Your task to perform on an android device: Open wifi settings Image 0: 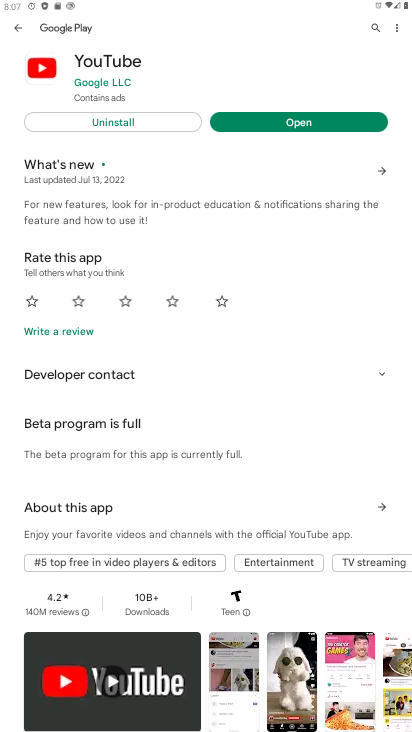
Step 0: press home button
Your task to perform on an android device: Open wifi settings Image 1: 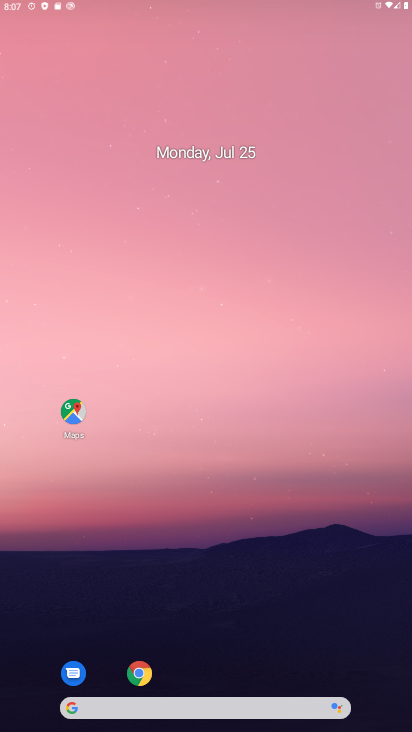
Step 1: drag from (382, 642) to (203, 47)
Your task to perform on an android device: Open wifi settings Image 2: 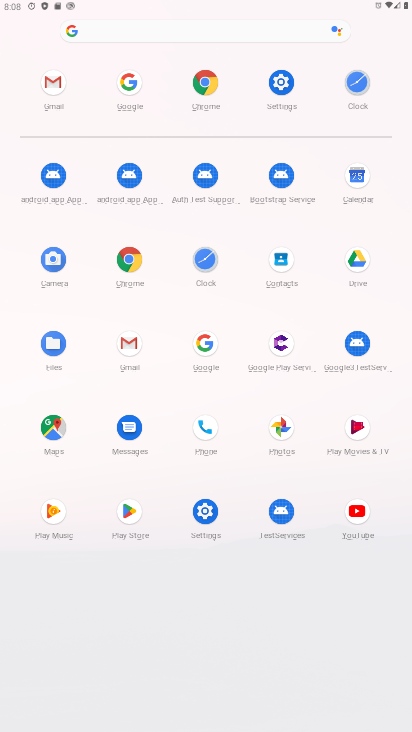
Step 2: click (202, 514)
Your task to perform on an android device: Open wifi settings Image 3: 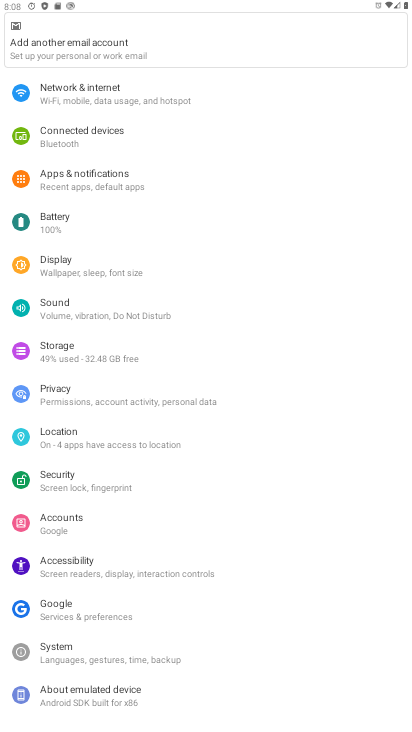
Step 3: click (116, 99)
Your task to perform on an android device: Open wifi settings Image 4: 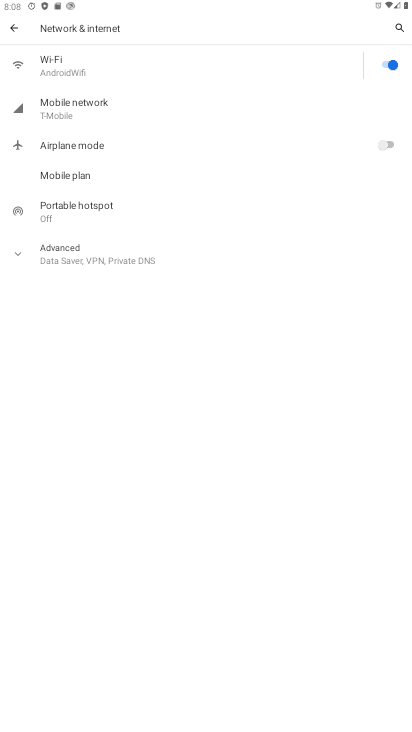
Step 4: click (91, 68)
Your task to perform on an android device: Open wifi settings Image 5: 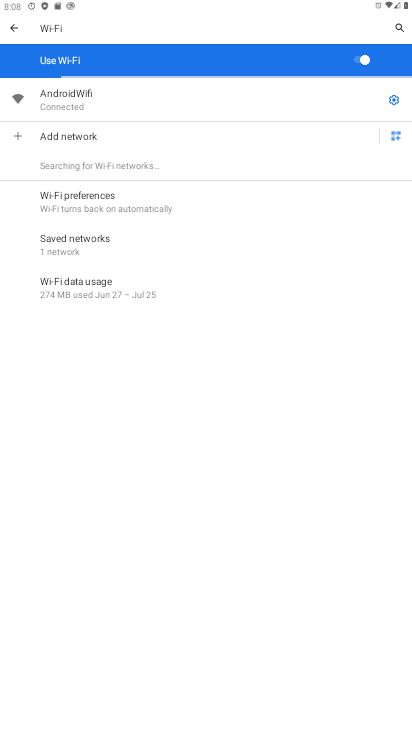
Step 5: task complete